Your task to perform on an android device: Show me popular videos on Youtube Image 0: 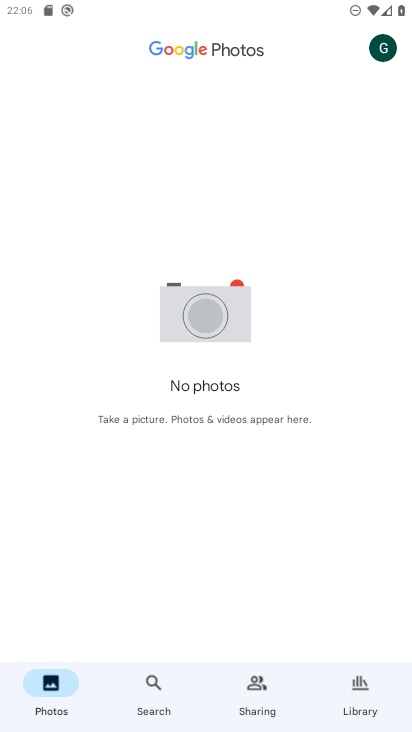
Step 0: press home button
Your task to perform on an android device: Show me popular videos on Youtube Image 1: 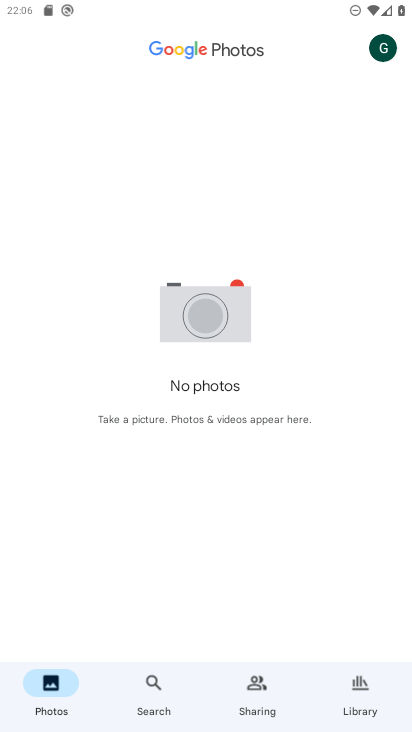
Step 1: press home button
Your task to perform on an android device: Show me popular videos on Youtube Image 2: 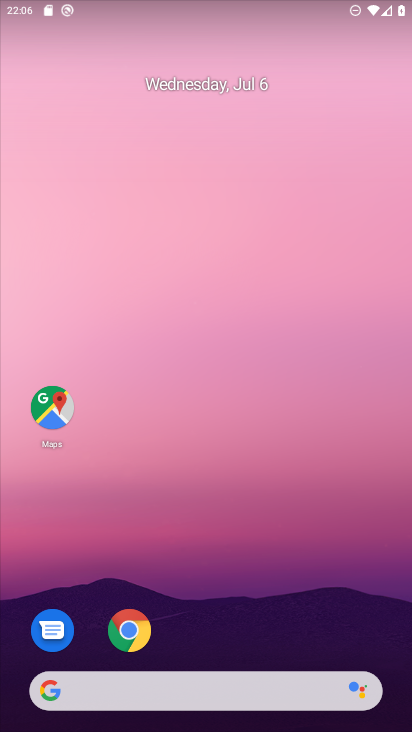
Step 2: drag from (334, 640) to (334, 438)
Your task to perform on an android device: Show me popular videos on Youtube Image 3: 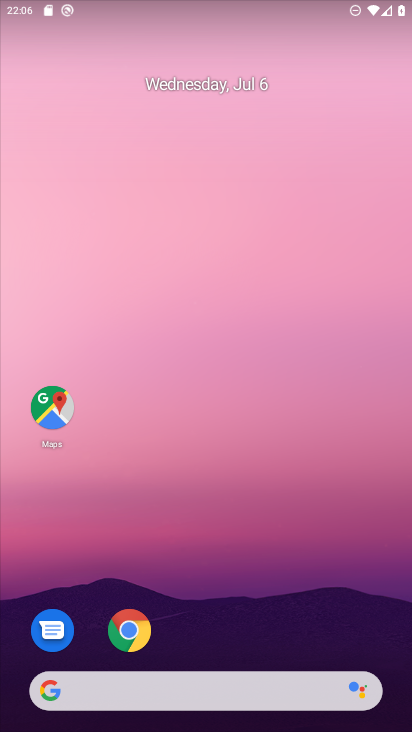
Step 3: drag from (380, 646) to (314, 56)
Your task to perform on an android device: Show me popular videos on Youtube Image 4: 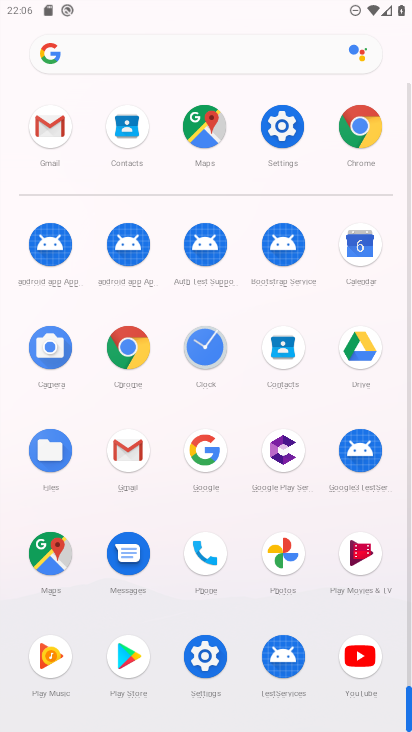
Step 4: click (357, 651)
Your task to perform on an android device: Show me popular videos on Youtube Image 5: 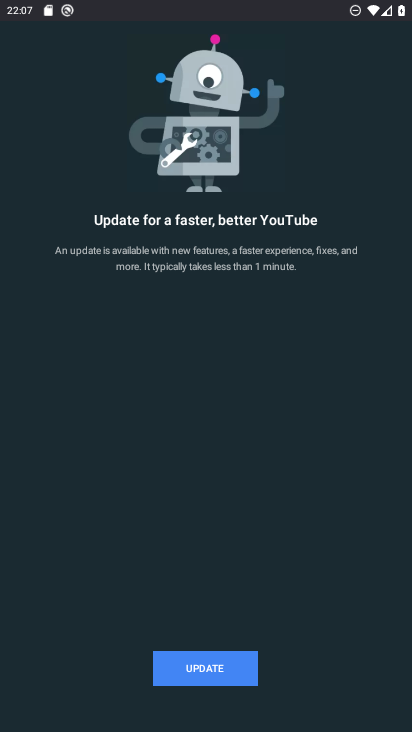
Step 5: click (330, 651)
Your task to perform on an android device: Show me popular videos on Youtube Image 6: 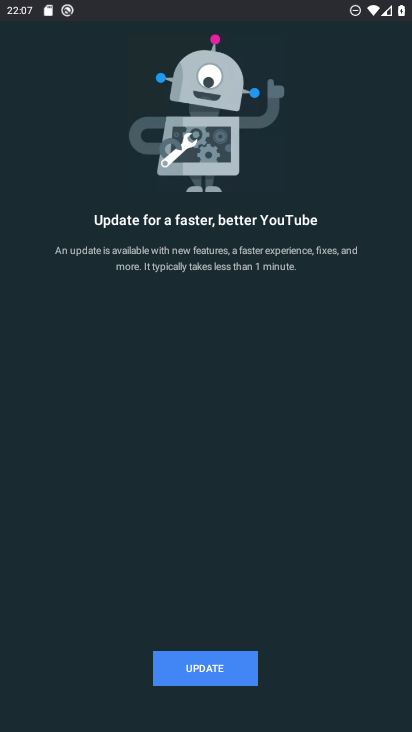
Step 6: click (233, 661)
Your task to perform on an android device: Show me popular videos on Youtube Image 7: 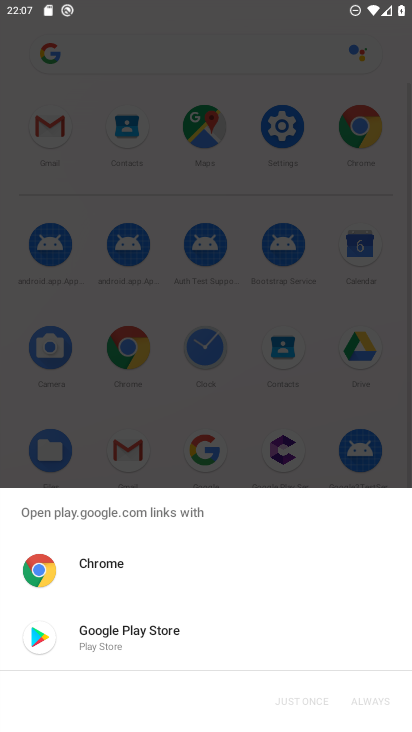
Step 7: click (183, 632)
Your task to perform on an android device: Show me popular videos on Youtube Image 8: 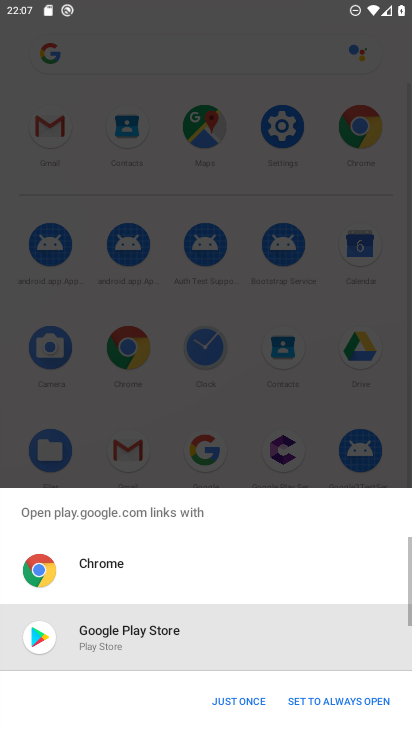
Step 8: click (214, 701)
Your task to perform on an android device: Show me popular videos on Youtube Image 9: 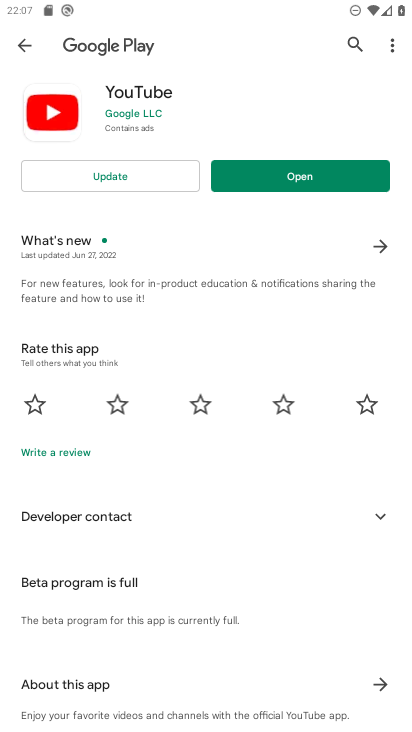
Step 9: click (103, 173)
Your task to perform on an android device: Show me popular videos on Youtube Image 10: 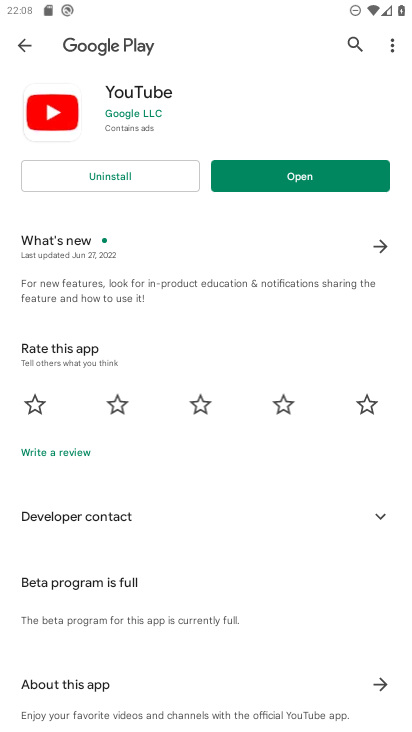
Step 10: click (303, 167)
Your task to perform on an android device: Show me popular videos on Youtube Image 11: 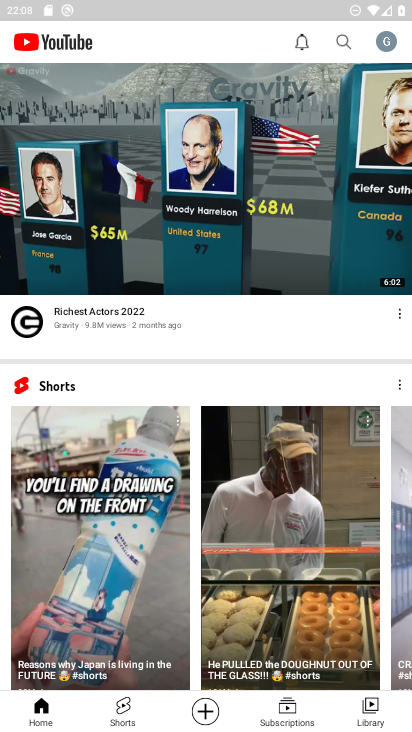
Step 11: click (337, 36)
Your task to perform on an android device: Show me popular videos on Youtube Image 12: 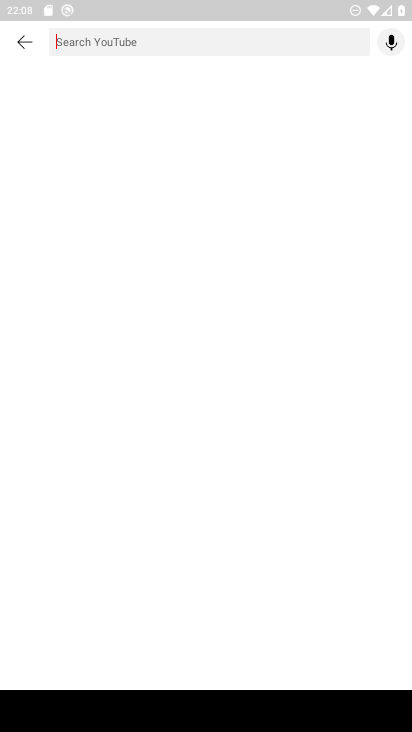
Step 12: type " popular videos on Youtube"
Your task to perform on an android device: Show me popular videos on Youtube Image 13: 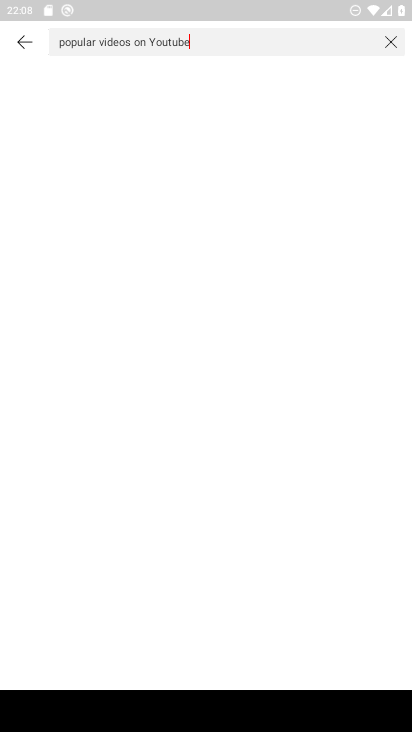
Step 13: type ""
Your task to perform on an android device: Show me popular videos on Youtube Image 14: 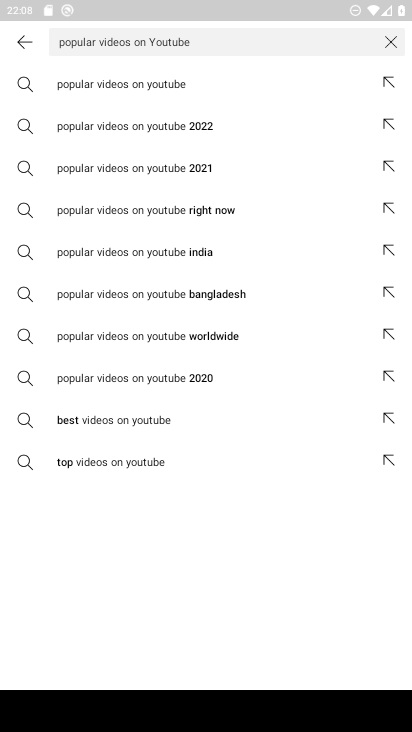
Step 14: click (179, 78)
Your task to perform on an android device: Show me popular videos on Youtube Image 15: 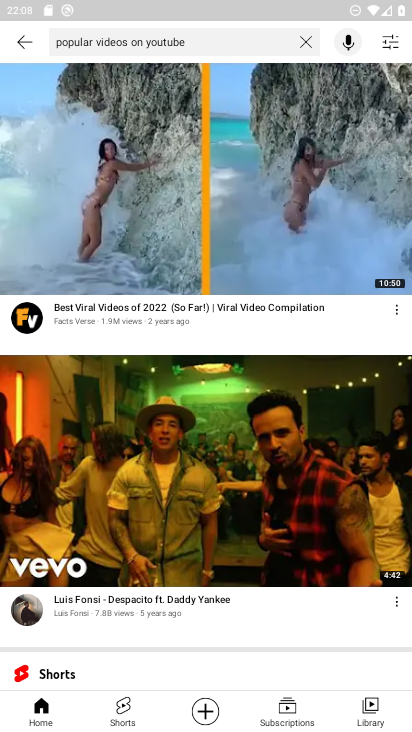
Step 15: task complete